Your task to perform on an android device: see creations saved in the google photos Image 0: 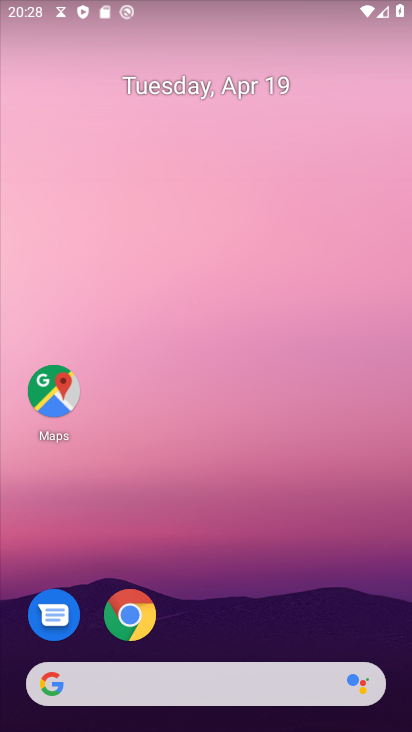
Step 0: drag from (298, 634) to (224, 42)
Your task to perform on an android device: see creations saved in the google photos Image 1: 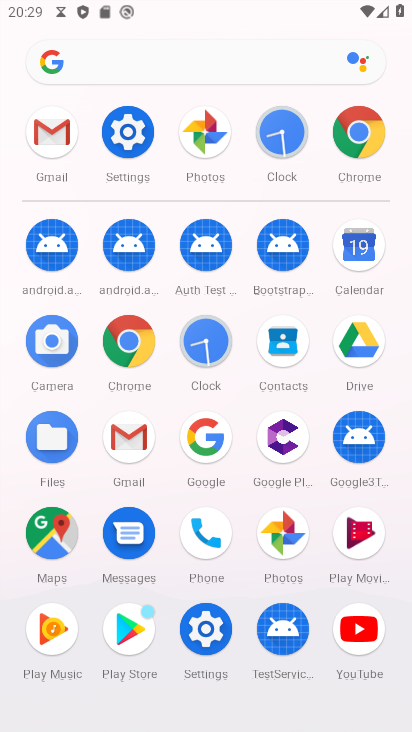
Step 1: drag from (0, 616) to (3, 317)
Your task to perform on an android device: see creations saved in the google photos Image 2: 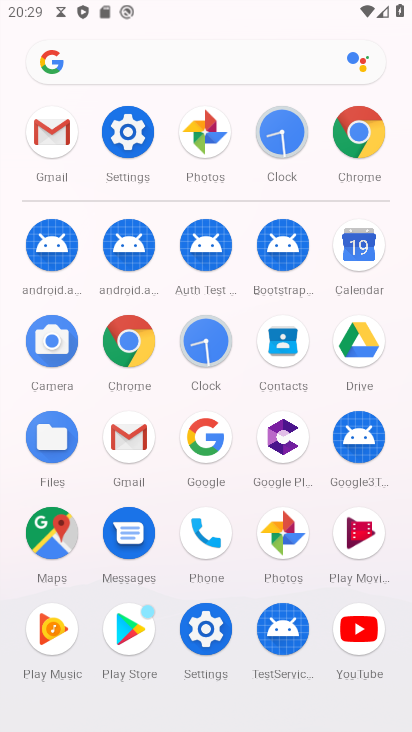
Step 2: click (282, 529)
Your task to perform on an android device: see creations saved in the google photos Image 3: 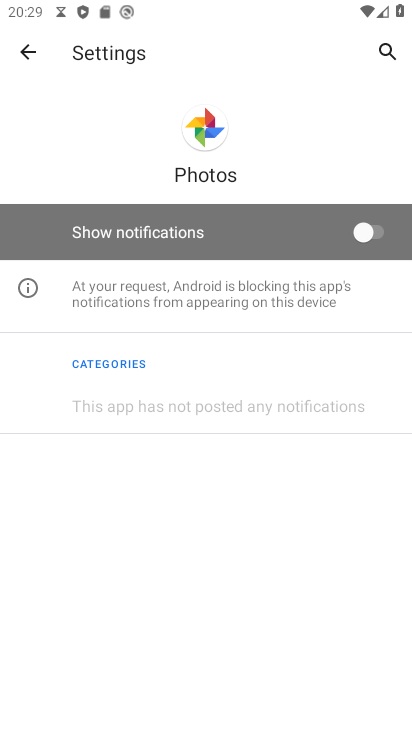
Step 3: click (32, 54)
Your task to perform on an android device: see creations saved in the google photos Image 4: 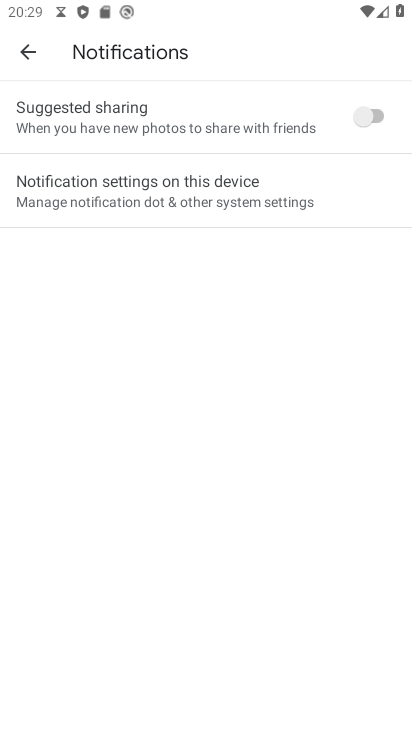
Step 4: click (32, 54)
Your task to perform on an android device: see creations saved in the google photos Image 5: 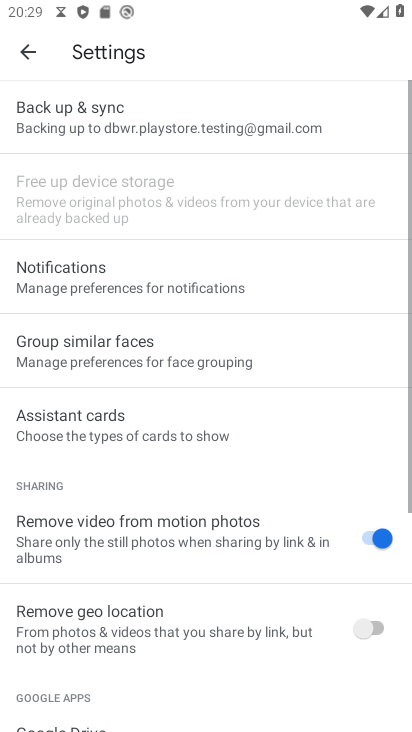
Step 5: click (32, 54)
Your task to perform on an android device: see creations saved in the google photos Image 6: 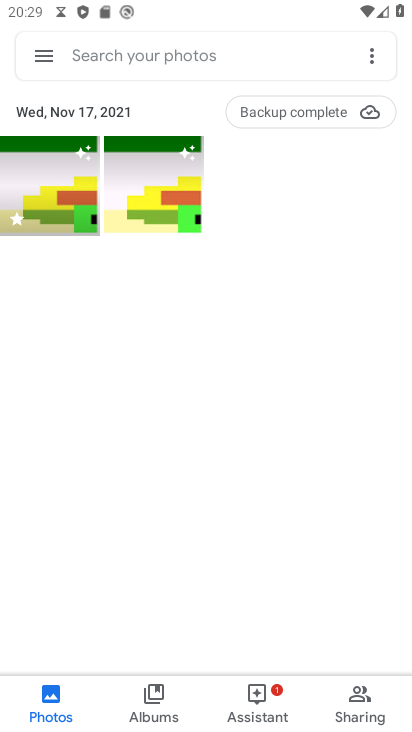
Step 6: task complete